Your task to perform on an android device: check out phone information Image 0: 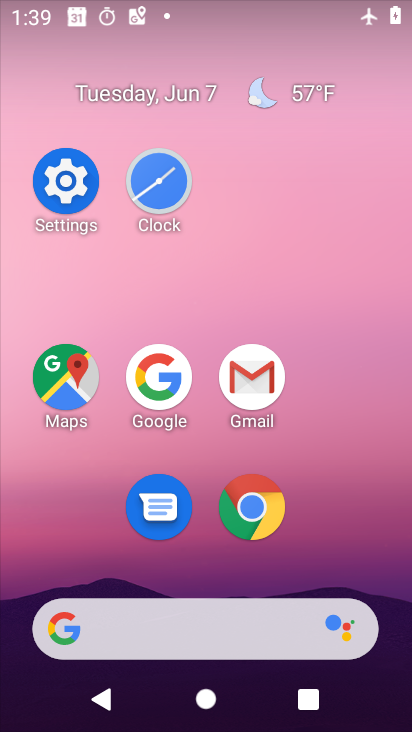
Step 0: click (73, 181)
Your task to perform on an android device: check out phone information Image 1: 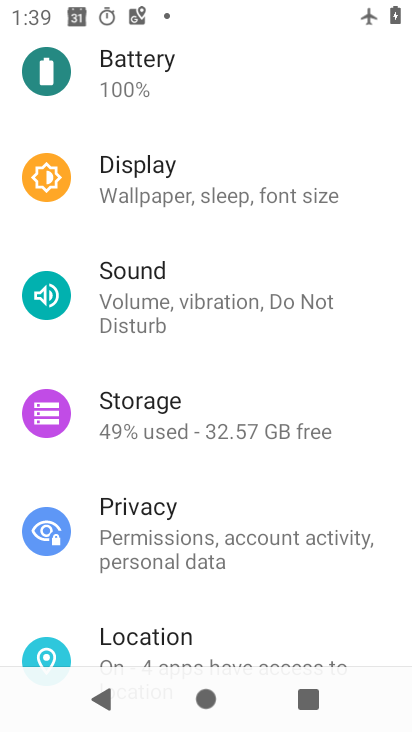
Step 1: click (222, 625)
Your task to perform on an android device: check out phone information Image 2: 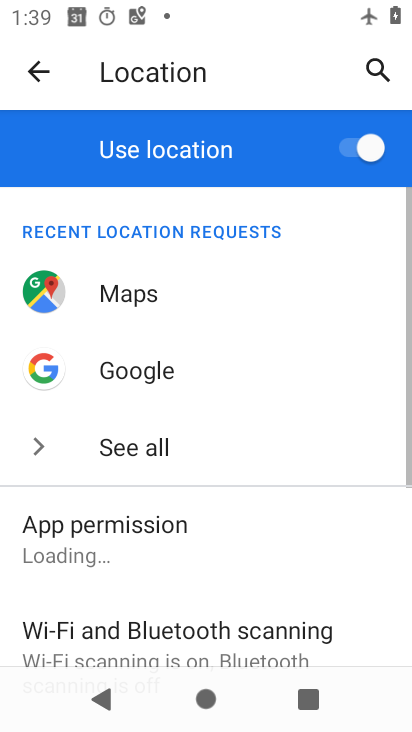
Step 2: task complete